Your task to perform on an android device: Empty the shopping cart on newegg.com. Search for "usb-b" on newegg.com, select the first entry, and add it to the cart. Image 0: 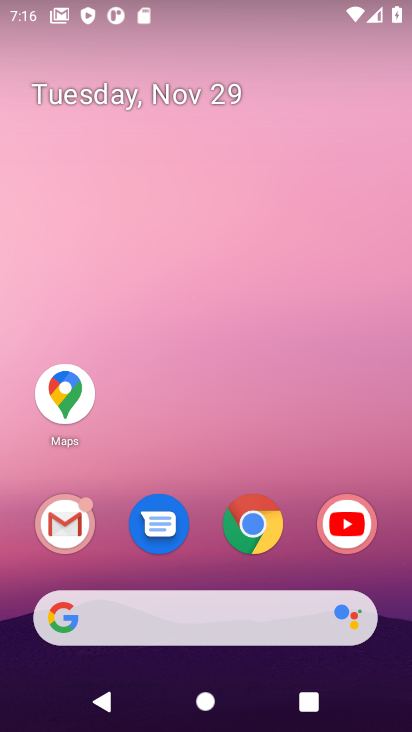
Step 0: click (243, 526)
Your task to perform on an android device: Empty the shopping cart on newegg.com. Search for "usb-b" on newegg.com, select the first entry, and add it to the cart. Image 1: 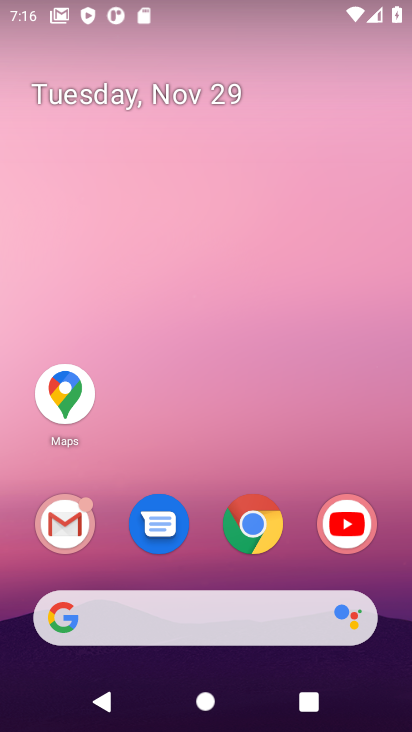
Step 1: click (243, 526)
Your task to perform on an android device: Empty the shopping cart on newegg.com. Search for "usb-b" on newegg.com, select the first entry, and add it to the cart. Image 2: 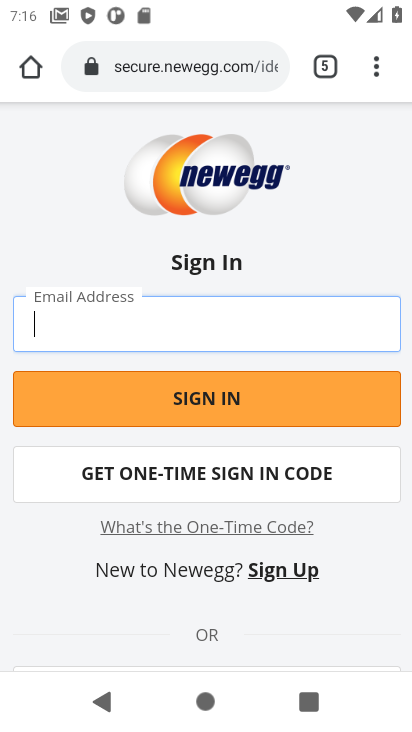
Step 2: press back button
Your task to perform on an android device: Empty the shopping cart on newegg.com. Search for "usb-b" on newegg.com, select the first entry, and add it to the cart. Image 3: 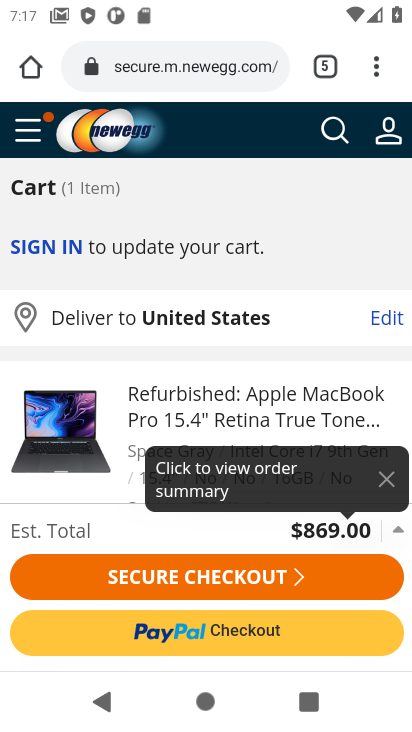
Step 3: drag from (157, 386) to (176, 157)
Your task to perform on an android device: Empty the shopping cart on newegg.com. Search for "usb-b" on newegg.com, select the first entry, and add it to the cart. Image 4: 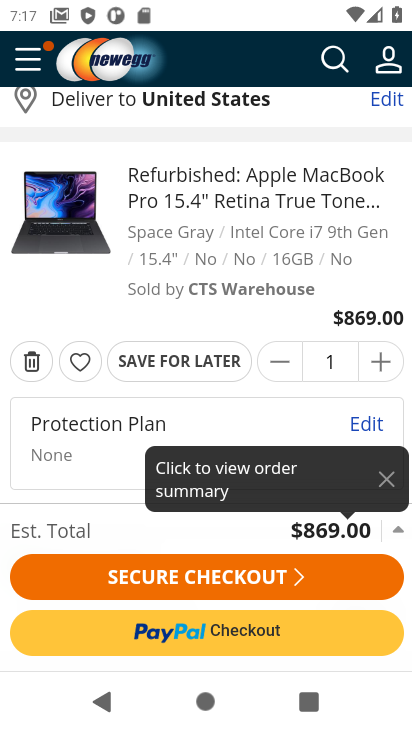
Step 4: click (32, 363)
Your task to perform on an android device: Empty the shopping cart on newegg.com. Search for "usb-b" on newegg.com, select the first entry, and add it to the cart. Image 5: 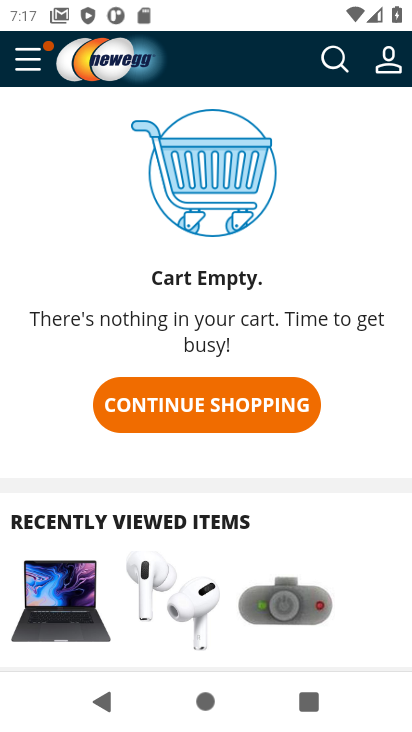
Step 5: click (333, 56)
Your task to perform on an android device: Empty the shopping cart on newegg.com. Search for "usb-b" on newegg.com, select the first entry, and add it to the cart. Image 6: 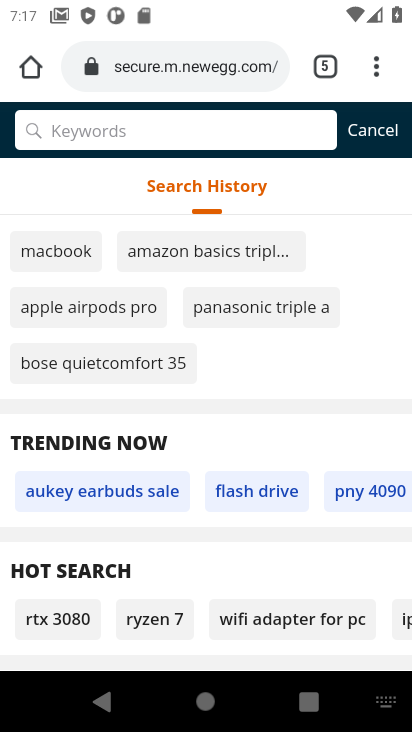
Step 6: type "usb-b"
Your task to perform on an android device: Empty the shopping cart on newegg.com. Search for "usb-b" on newegg.com, select the first entry, and add it to the cart. Image 7: 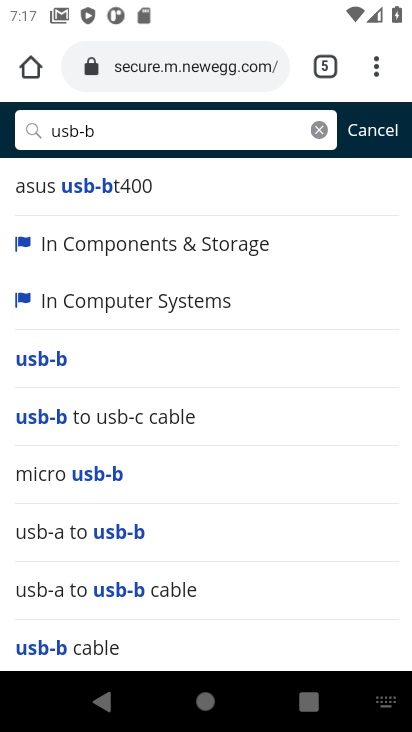
Step 7: click (37, 362)
Your task to perform on an android device: Empty the shopping cart on newegg.com. Search for "usb-b" on newegg.com, select the first entry, and add it to the cart. Image 8: 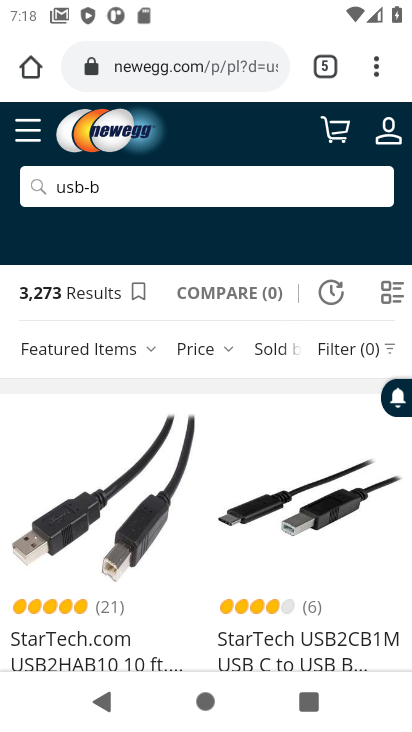
Step 8: drag from (149, 536) to (157, 347)
Your task to perform on an android device: Empty the shopping cart on newegg.com. Search for "usb-b" on newegg.com, select the first entry, and add it to the cart. Image 9: 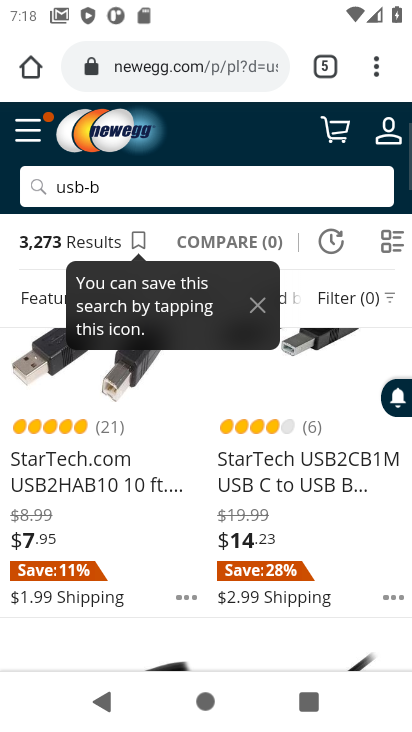
Step 9: click (79, 416)
Your task to perform on an android device: Empty the shopping cart on newegg.com. Search for "usb-b" on newegg.com, select the first entry, and add it to the cart. Image 10: 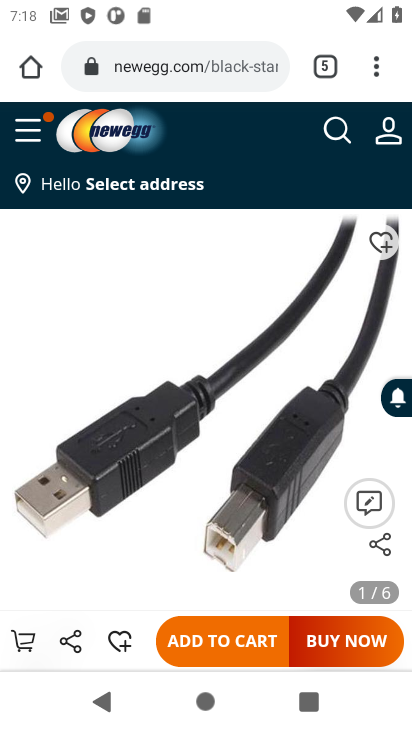
Step 10: task complete